Your task to perform on an android device: open sync settings in chrome Image 0: 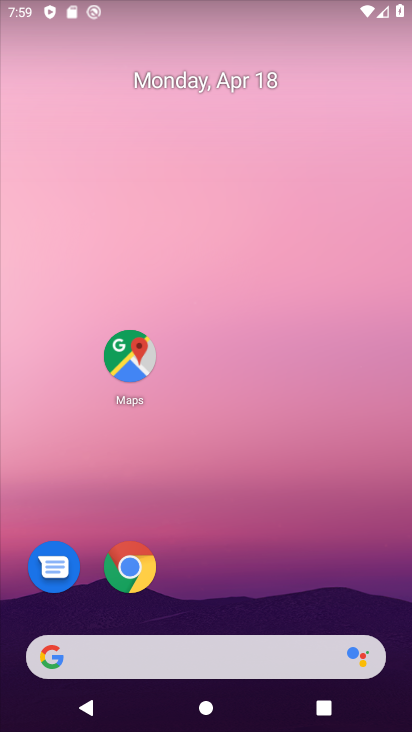
Step 0: click (262, 246)
Your task to perform on an android device: open sync settings in chrome Image 1: 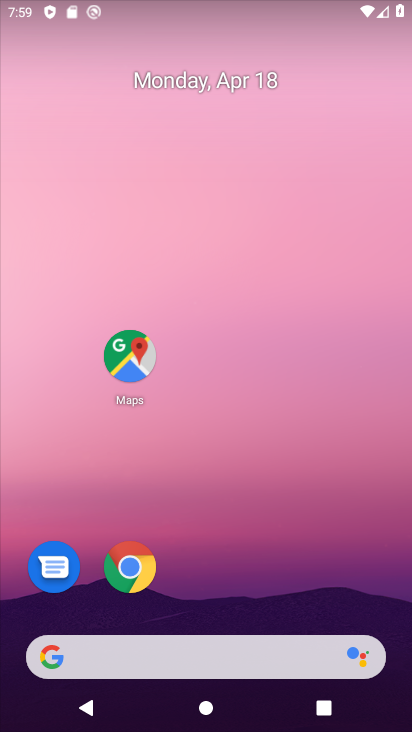
Step 1: drag from (251, 678) to (356, 289)
Your task to perform on an android device: open sync settings in chrome Image 2: 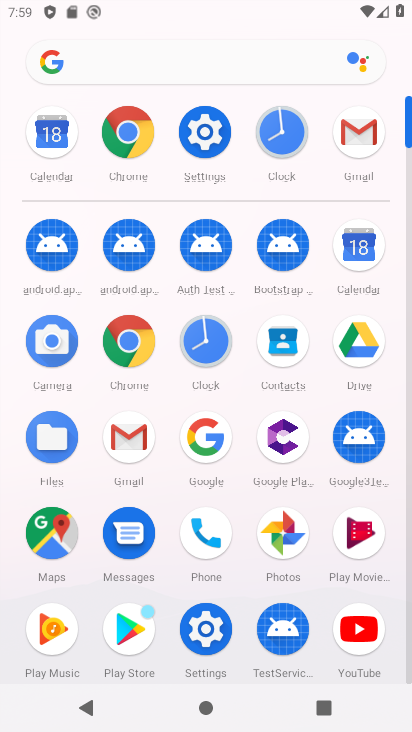
Step 2: click (117, 328)
Your task to perform on an android device: open sync settings in chrome Image 3: 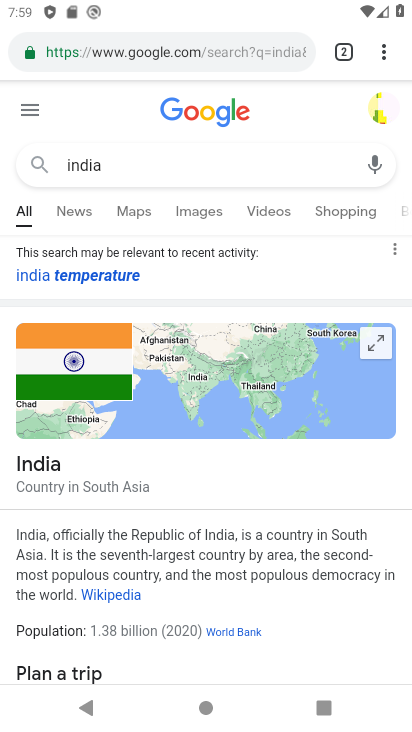
Step 3: click (387, 54)
Your task to perform on an android device: open sync settings in chrome Image 4: 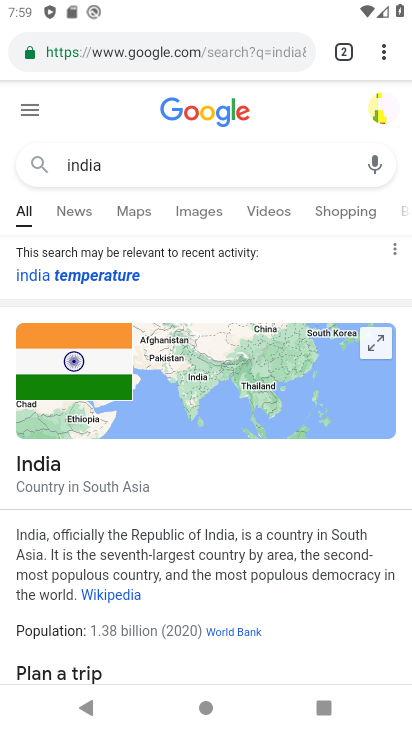
Step 4: click (387, 54)
Your task to perform on an android device: open sync settings in chrome Image 5: 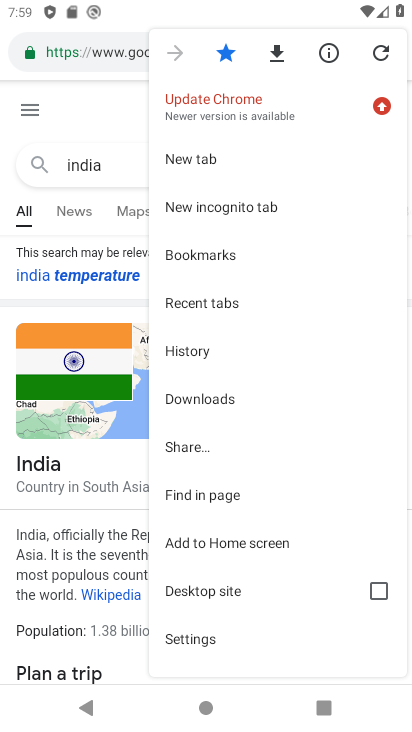
Step 5: click (195, 637)
Your task to perform on an android device: open sync settings in chrome Image 6: 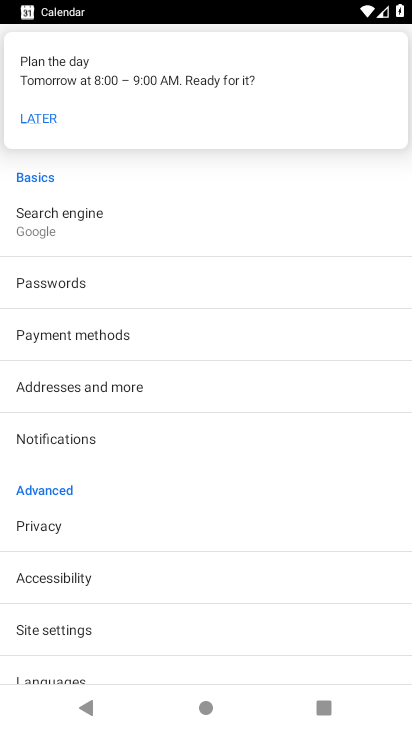
Step 6: click (65, 621)
Your task to perform on an android device: open sync settings in chrome Image 7: 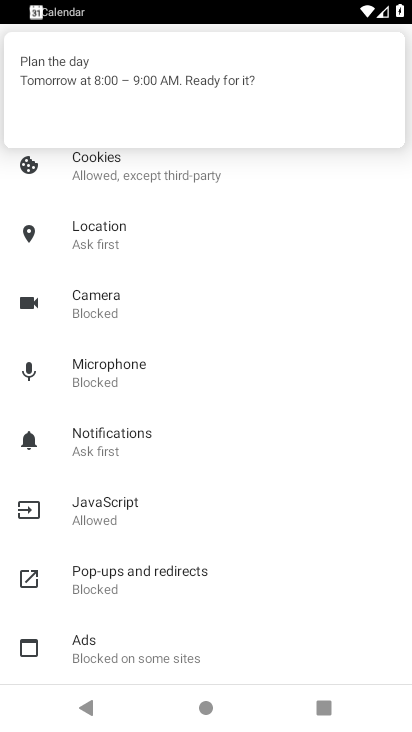
Step 7: drag from (167, 604) to (195, 302)
Your task to perform on an android device: open sync settings in chrome Image 8: 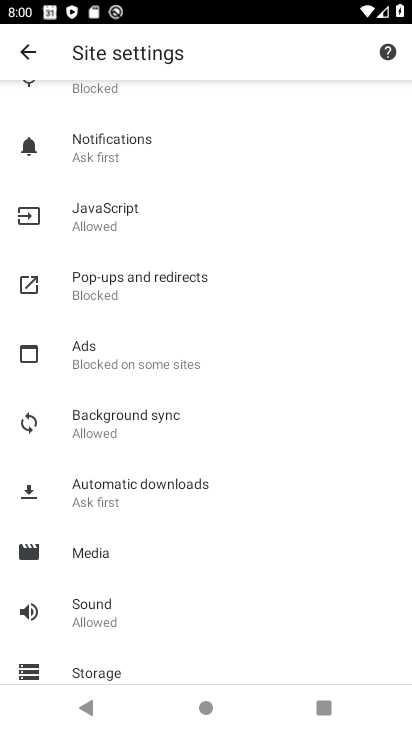
Step 8: click (144, 415)
Your task to perform on an android device: open sync settings in chrome Image 9: 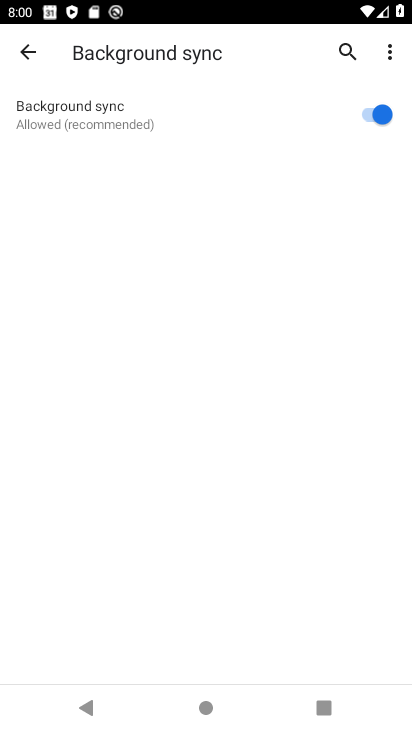
Step 9: click (98, 113)
Your task to perform on an android device: open sync settings in chrome Image 10: 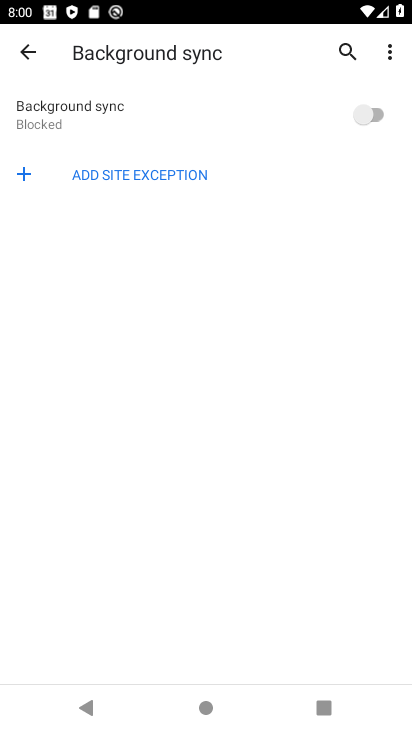
Step 10: click (361, 112)
Your task to perform on an android device: open sync settings in chrome Image 11: 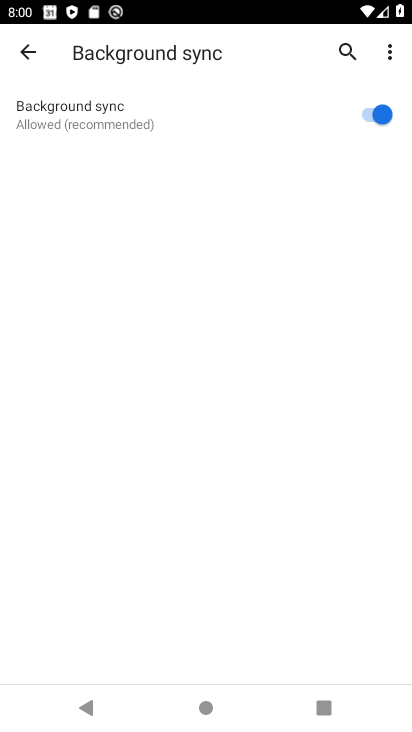
Step 11: task complete